Your task to perform on an android device: snooze an email in the gmail app Image 0: 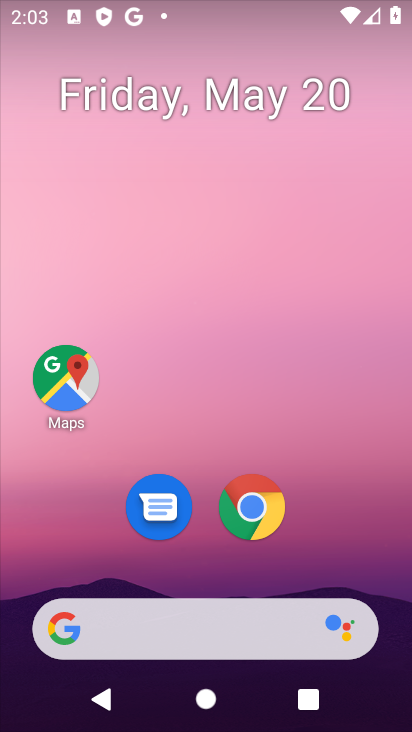
Step 0: drag from (231, 572) to (327, 11)
Your task to perform on an android device: snooze an email in the gmail app Image 1: 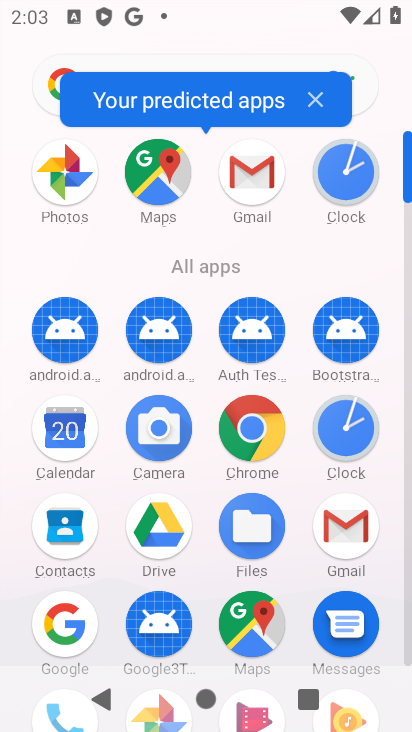
Step 1: click (264, 194)
Your task to perform on an android device: snooze an email in the gmail app Image 2: 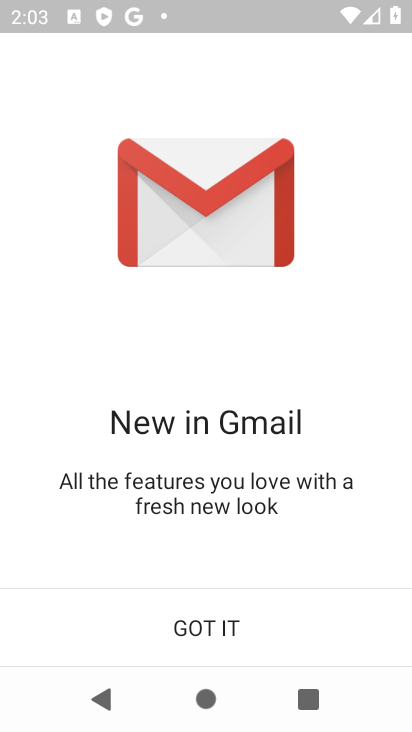
Step 2: click (226, 630)
Your task to perform on an android device: snooze an email in the gmail app Image 3: 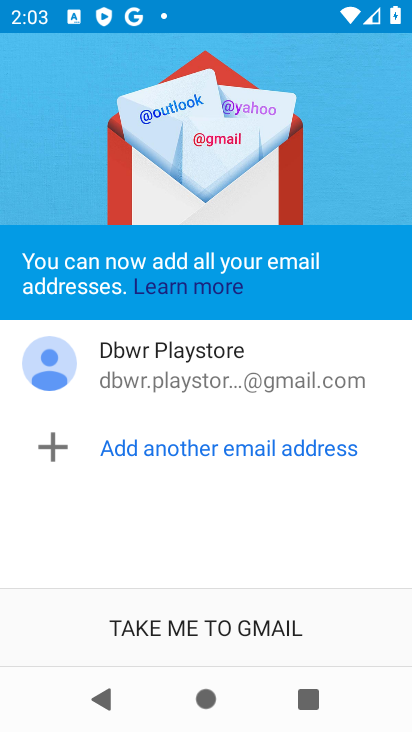
Step 3: click (226, 630)
Your task to perform on an android device: snooze an email in the gmail app Image 4: 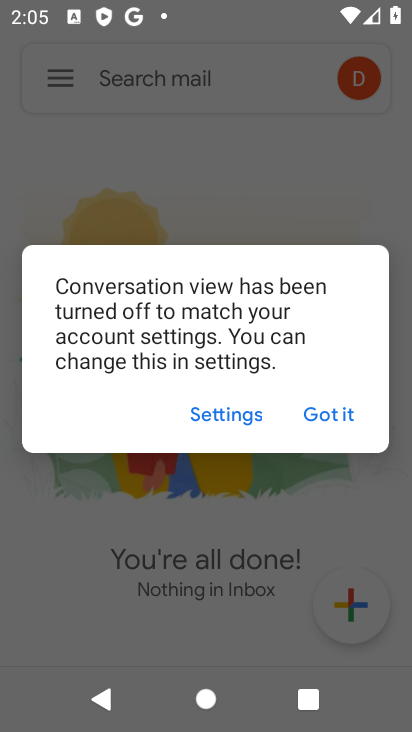
Step 4: task complete